Your task to perform on an android device: check out phone information Image 0: 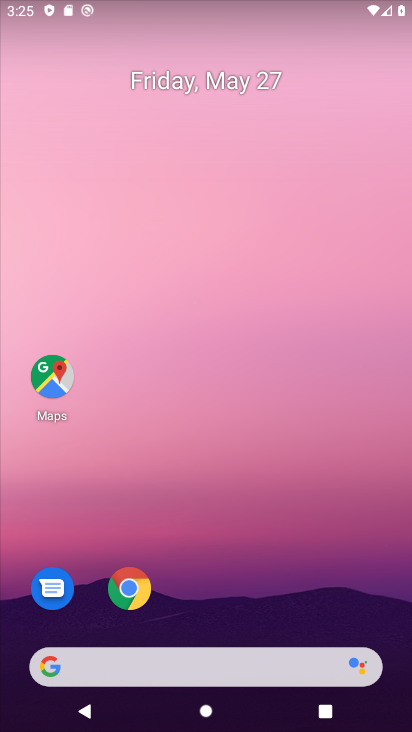
Step 0: drag from (237, 652) to (300, 9)
Your task to perform on an android device: check out phone information Image 1: 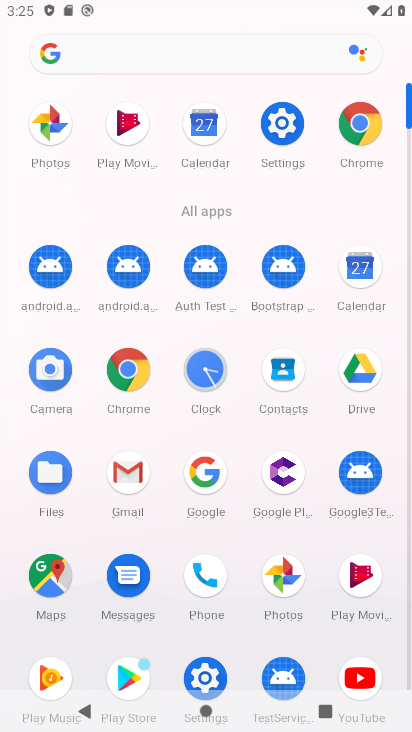
Step 1: click (201, 674)
Your task to perform on an android device: check out phone information Image 2: 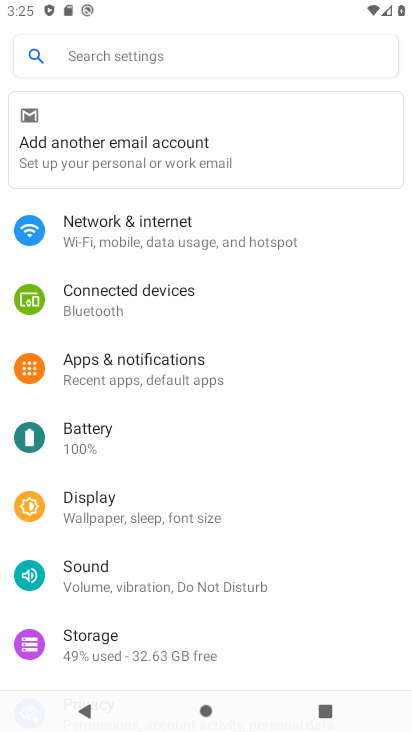
Step 2: task complete